Your task to perform on an android device: snooze an email in the gmail app Image 0: 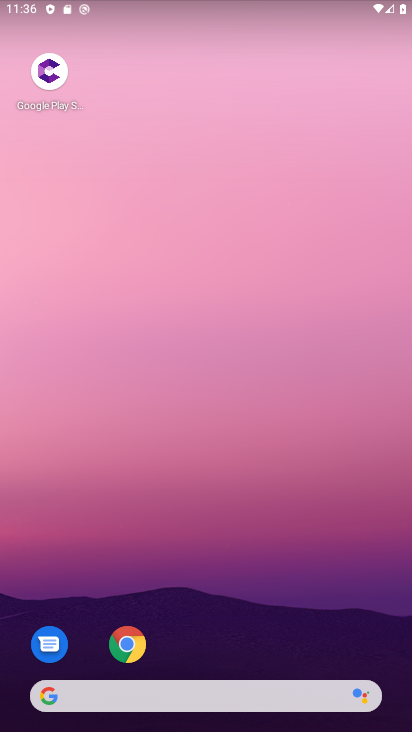
Step 0: drag from (240, 508) to (328, 68)
Your task to perform on an android device: snooze an email in the gmail app Image 1: 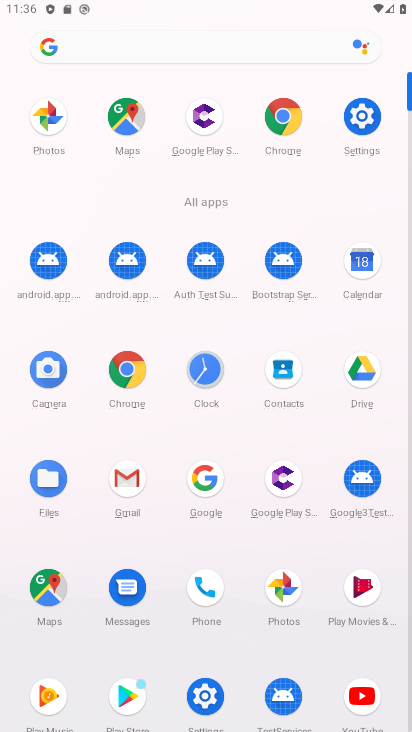
Step 1: click (122, 481)
Your task to perform on an android device: snooze an email in the gmail app Image 2: 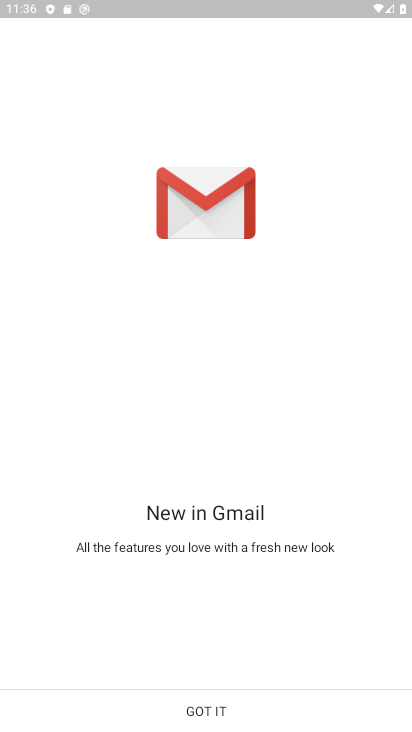
Step 2: click (117, 472)
Your task to perform on an android device: snooze an email in the gmail app Image 3: 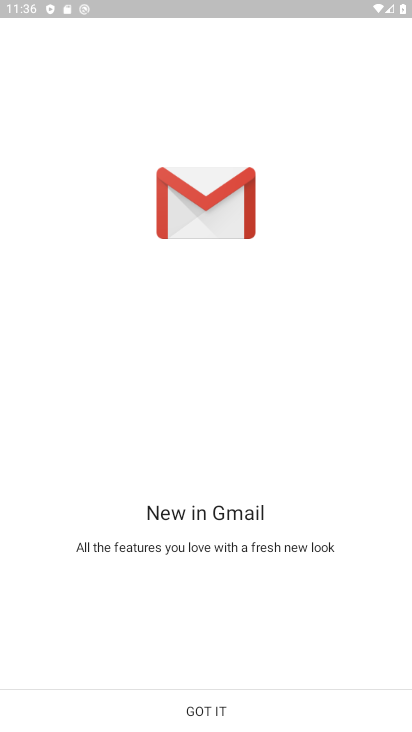
Step 3: drag from (156, 541) to (197, 667)
Your task to perform on an android device: snooze an email in the gmail app Image 4: 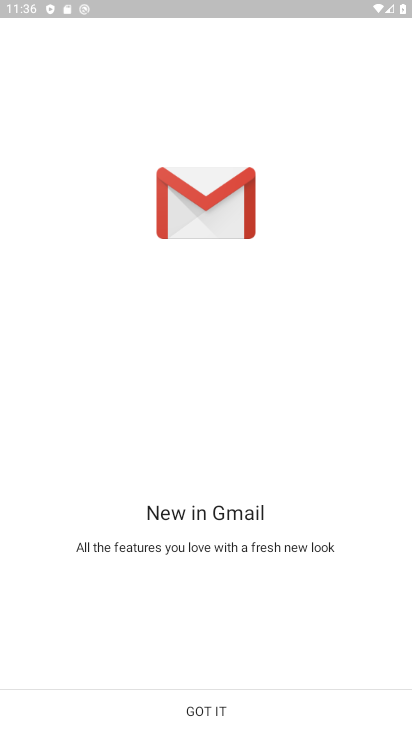
Step 4: click (218, 709)
Your task to perform on an android device: snooze an email in the gmail app Image 5: 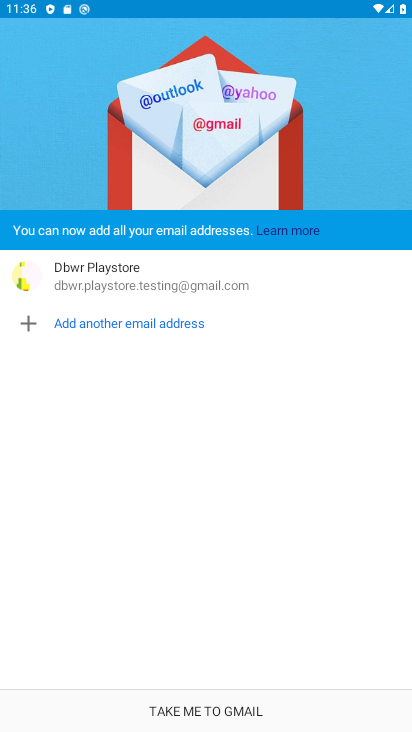
Step 5: click (241, 719)
Your task to perform on an android device: snooze an email in the gmail app Image 6: 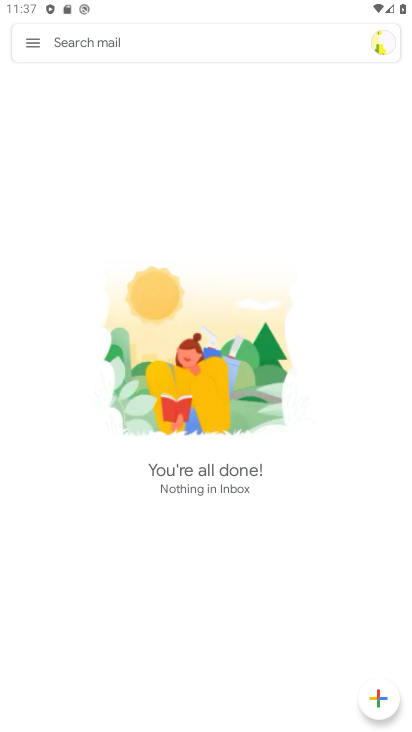
Step 6: click (39, 42)
Your task to perform on an android device: snooze an email in the gmail app Image 7: 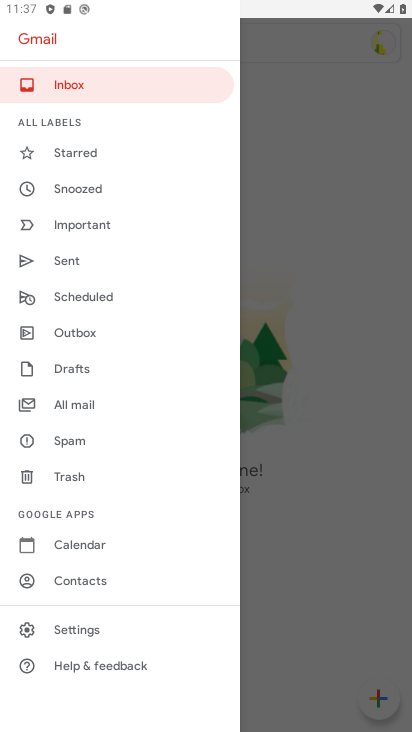
Step 7: click (65, 406)
Your task to perform on an android device: snooze an email in the gmail app Image 8: 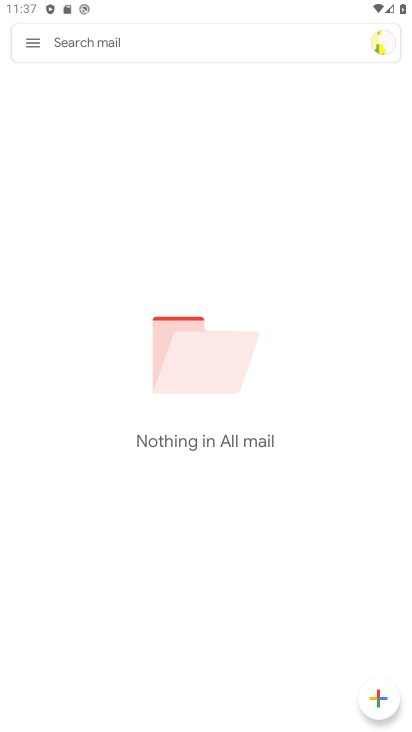
Step 8: task complete